Your task to perform on an android device: open a bookmark in the chrome app Image 0: 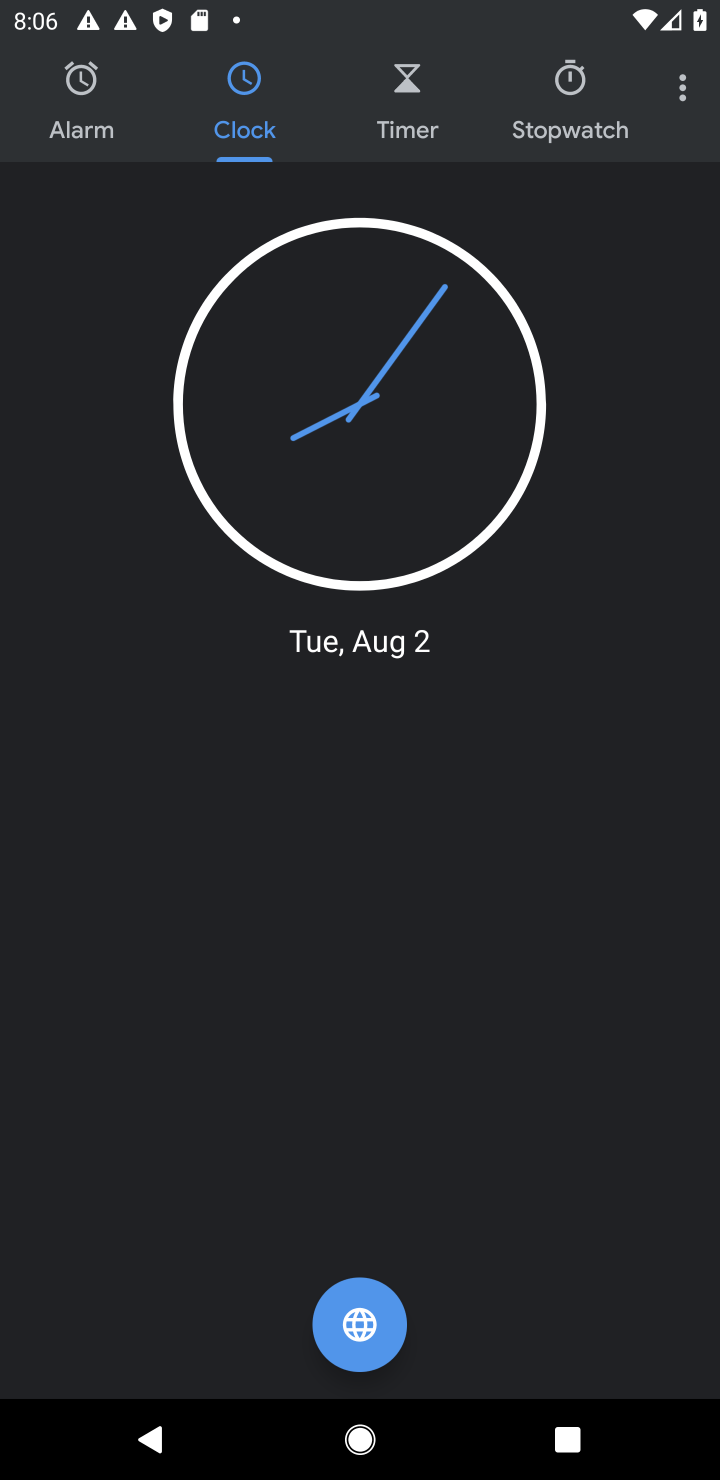
Step 0: press home button
Your task to perform on an android device: open a bookmark in the chrome app Image 1: 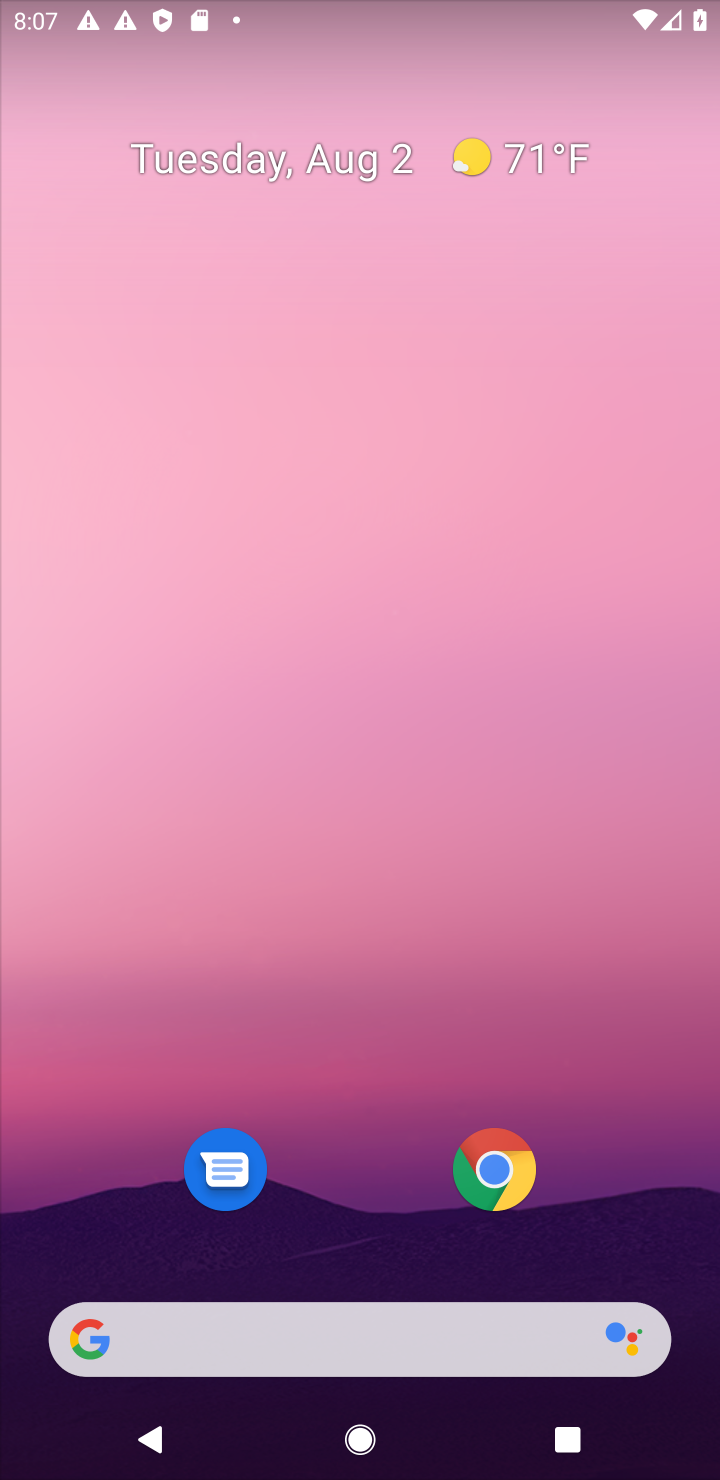
Step 1: click (487, 1159)
Your task to perform on an android device: open a bookmark in the chrome app Image 2: 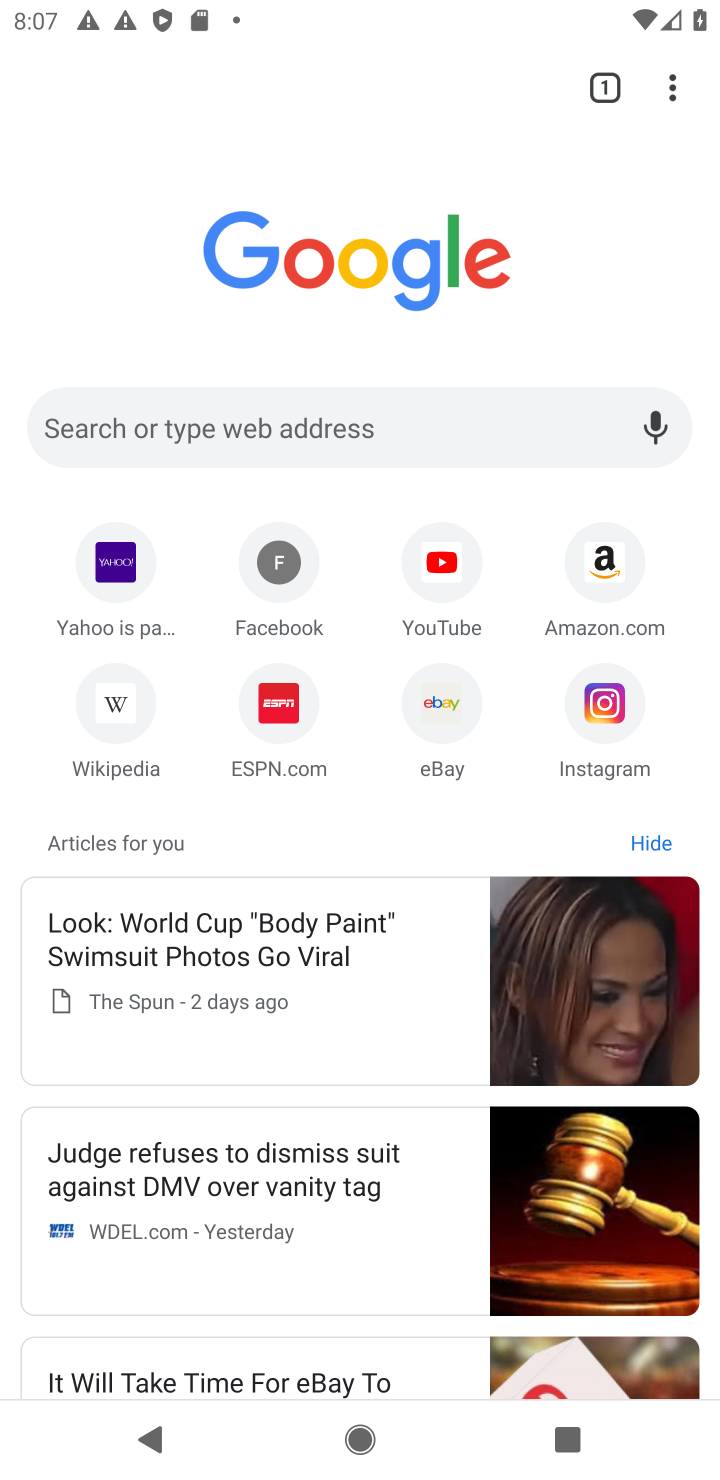
Step 2: click (670, 84)
Your task to perform on an android device: open a bookmark in the chrome app Image 3: 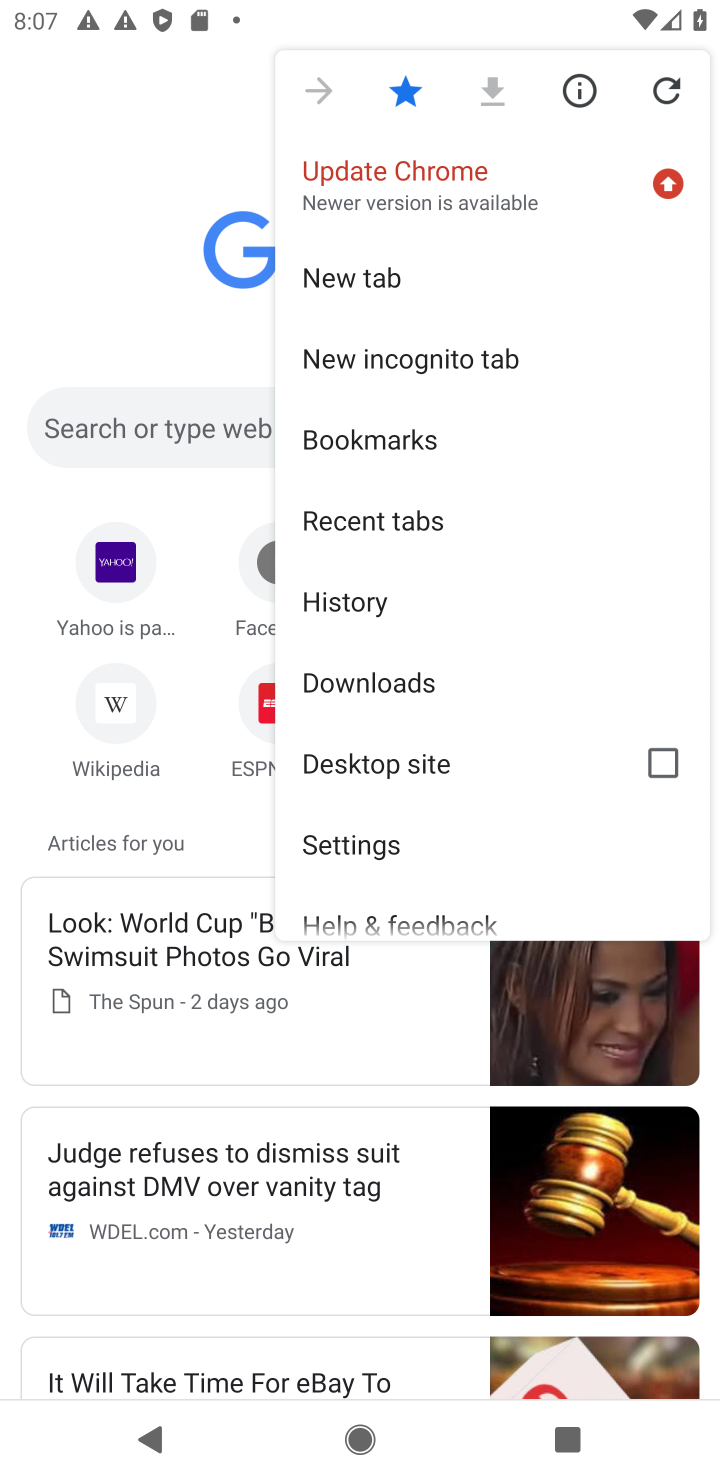
Step 3: click (389, 455)
Your task to perform on an android device: open a bookmark in the chrome app Image 4: 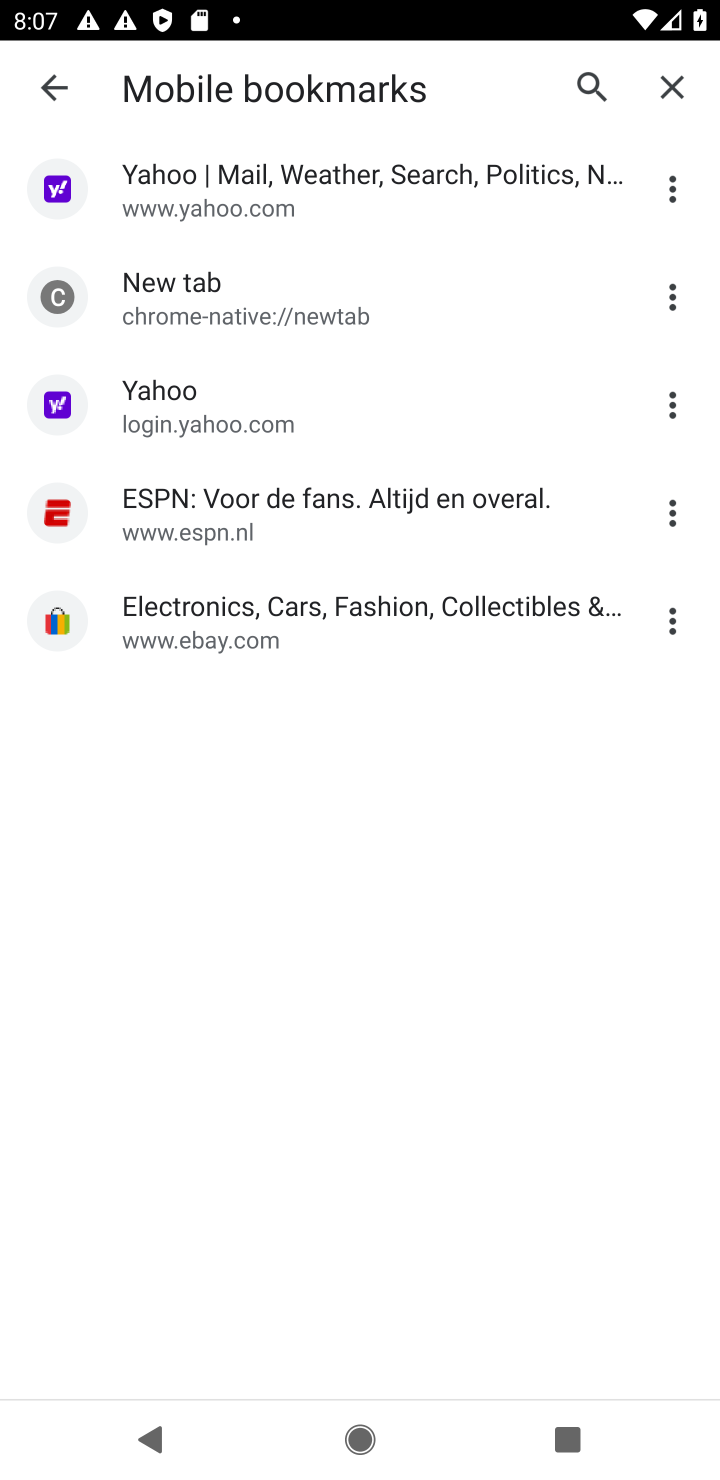
Step 4: click (387, 612)
Your task to perform on an android device: open a bookmark in the chrome app Image 5: 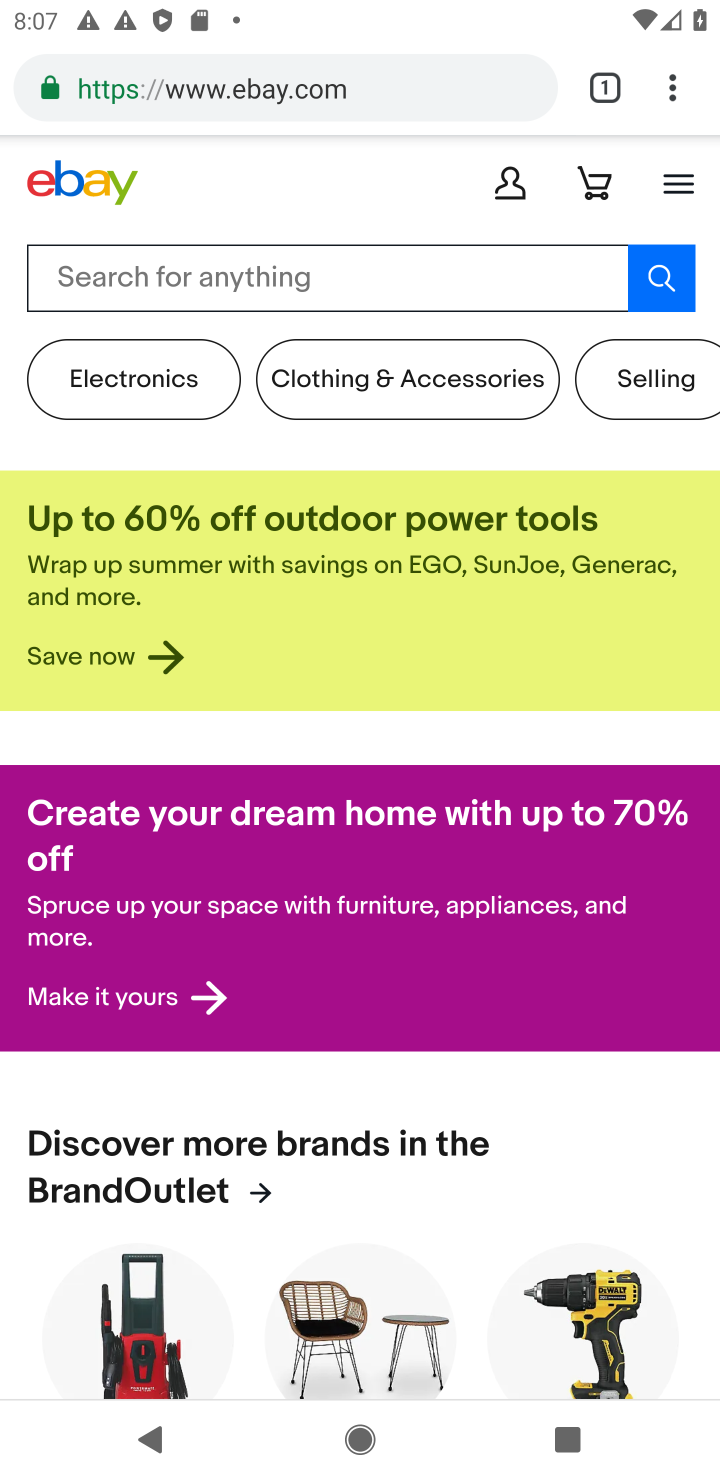
Step 5: task complete